Your task to perform on an android device: toggle javascript in the chrome app Image 0: 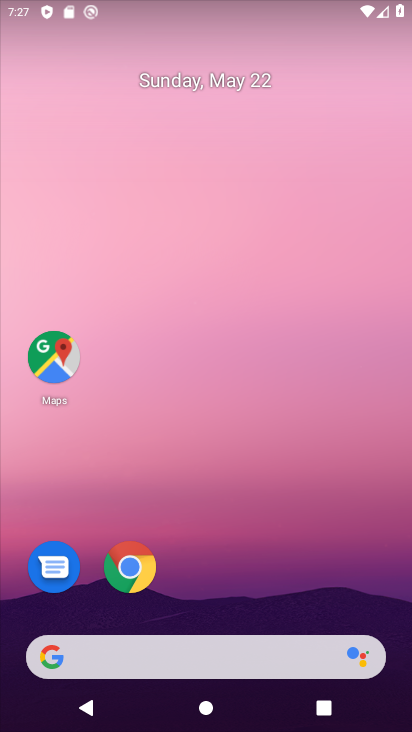
Step 0: click (132, 562)
Your task to perform on an android device: toggle javascript in the chrome app Image 1: 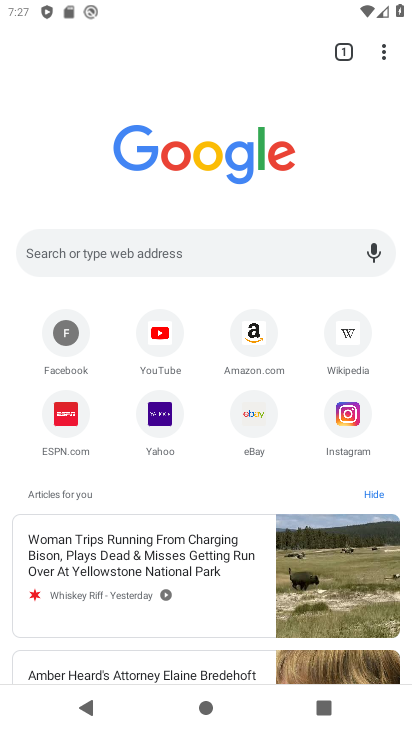
Step 1: drag from (382, 60) to (222, 432)
Your task to perform on an android device: toggle javascript in the chrome app Image 2: 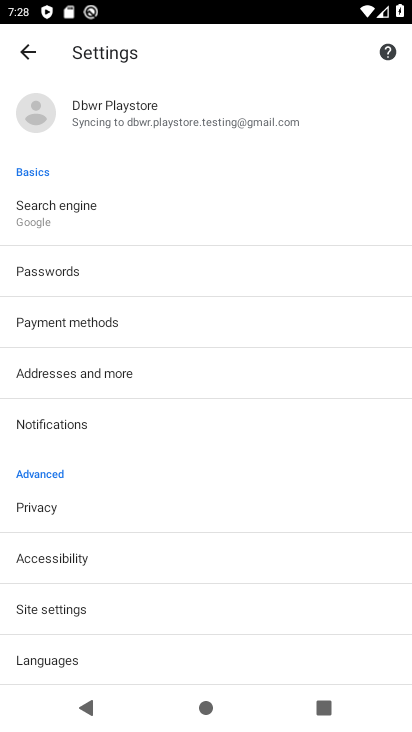
Step 2: click (87, 609)
Your task to perform on an android device: toggle javascript in the chrome app Image 3: 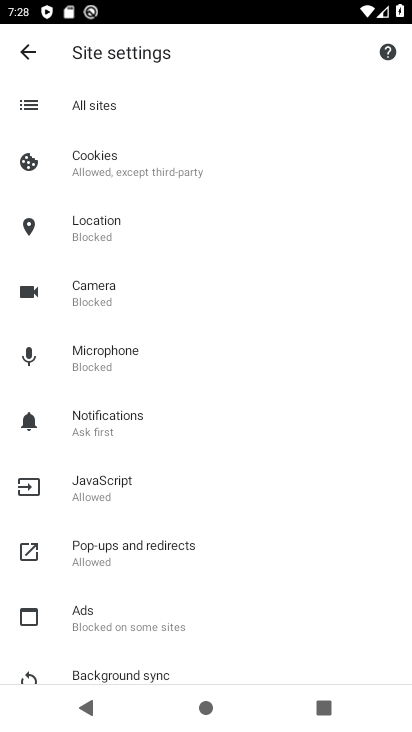
Step 3: click (163, 487)
Your task to perform on an android device: toggle javascript in the chrome app Image 4: 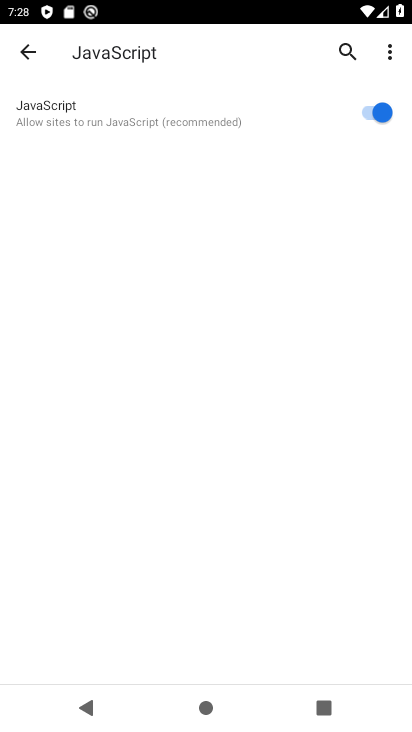
Step 4: click (370, 115)
Your task to perform on an android device: toggle javascript in the chrome app Image 5: 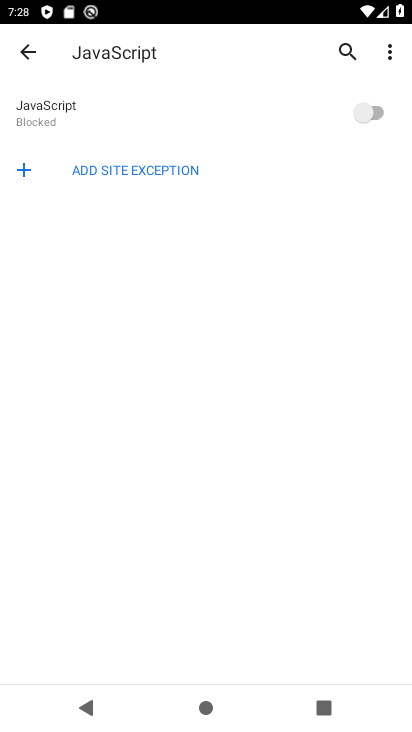
Step 5: task complete